Your task to perform on an android device: find photos in the google photos app Image 0: 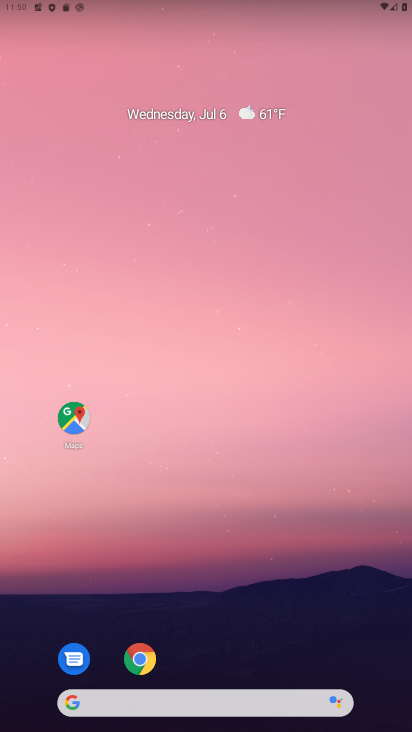
Step 0: drag from (302, 583) to (258, 83)
Your task to perform on an android device: find photos in the google photos app Image 1: 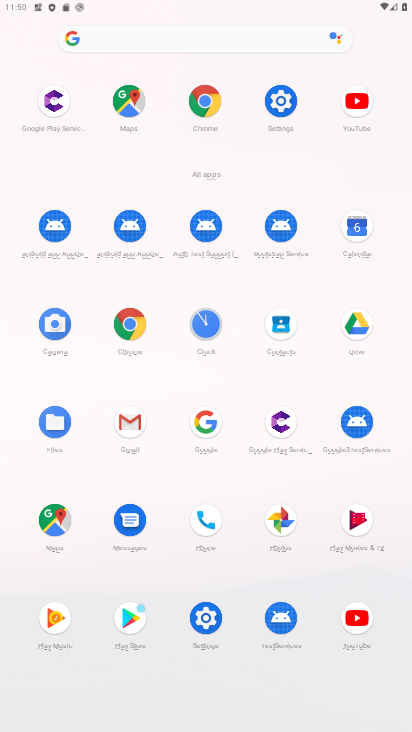
Step 1: click (288, 512)
Your task to perform on an android device: find photos in the google photos app Image 2: 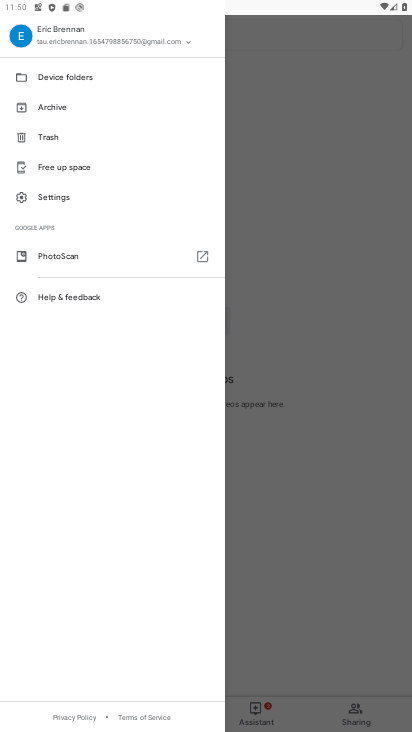
Step 2: click (260, 113)
Your task to perform on an android device: find photos in the google photos app Image 3: 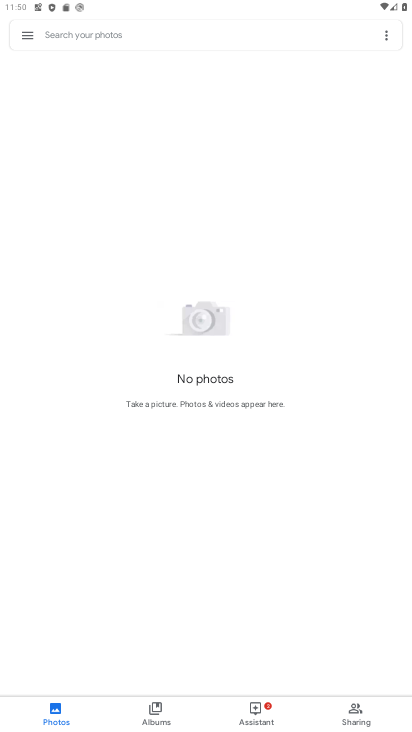
Step 3: task complete